Your task to perform on an android device: Go to ESPN.com Image 0: 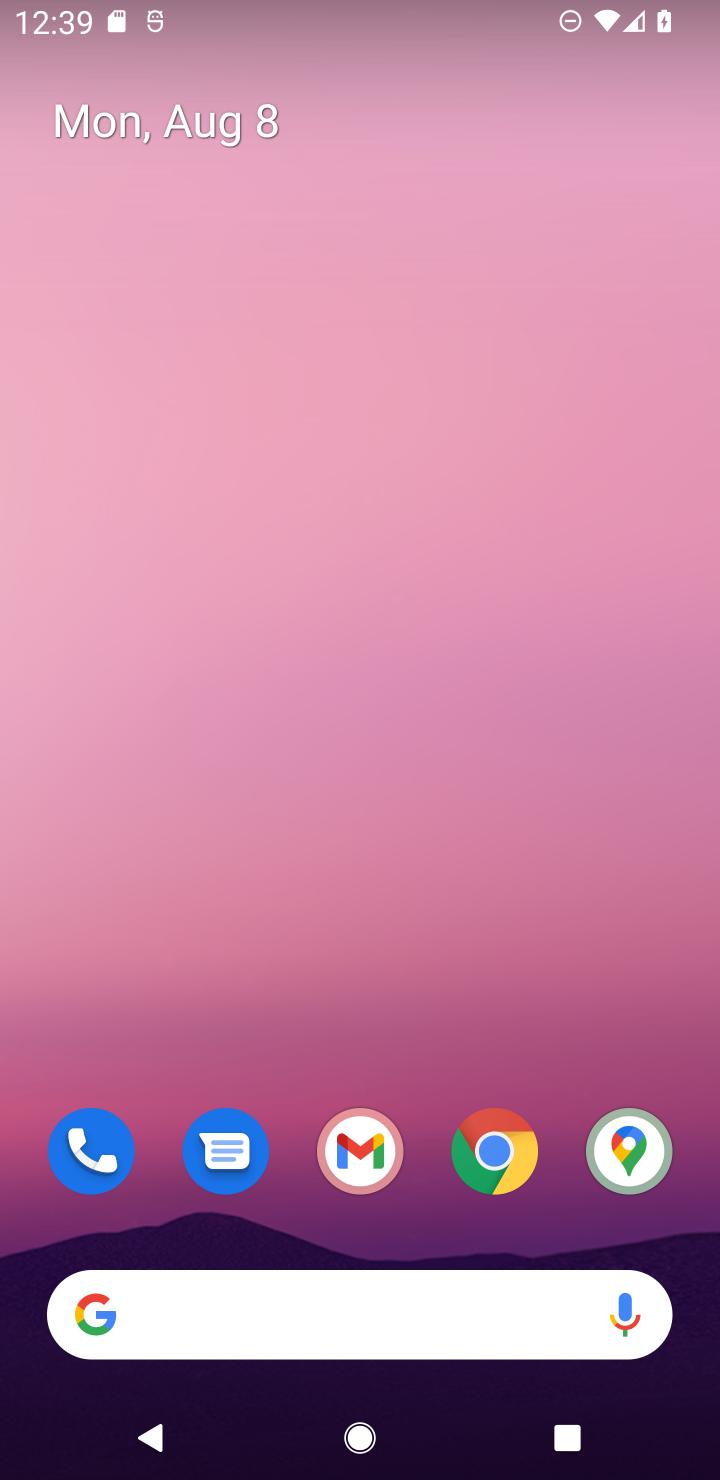
Step 0: click (510, 1158)
Your task to perform on an android device: Go to ESPN.com Image 1: 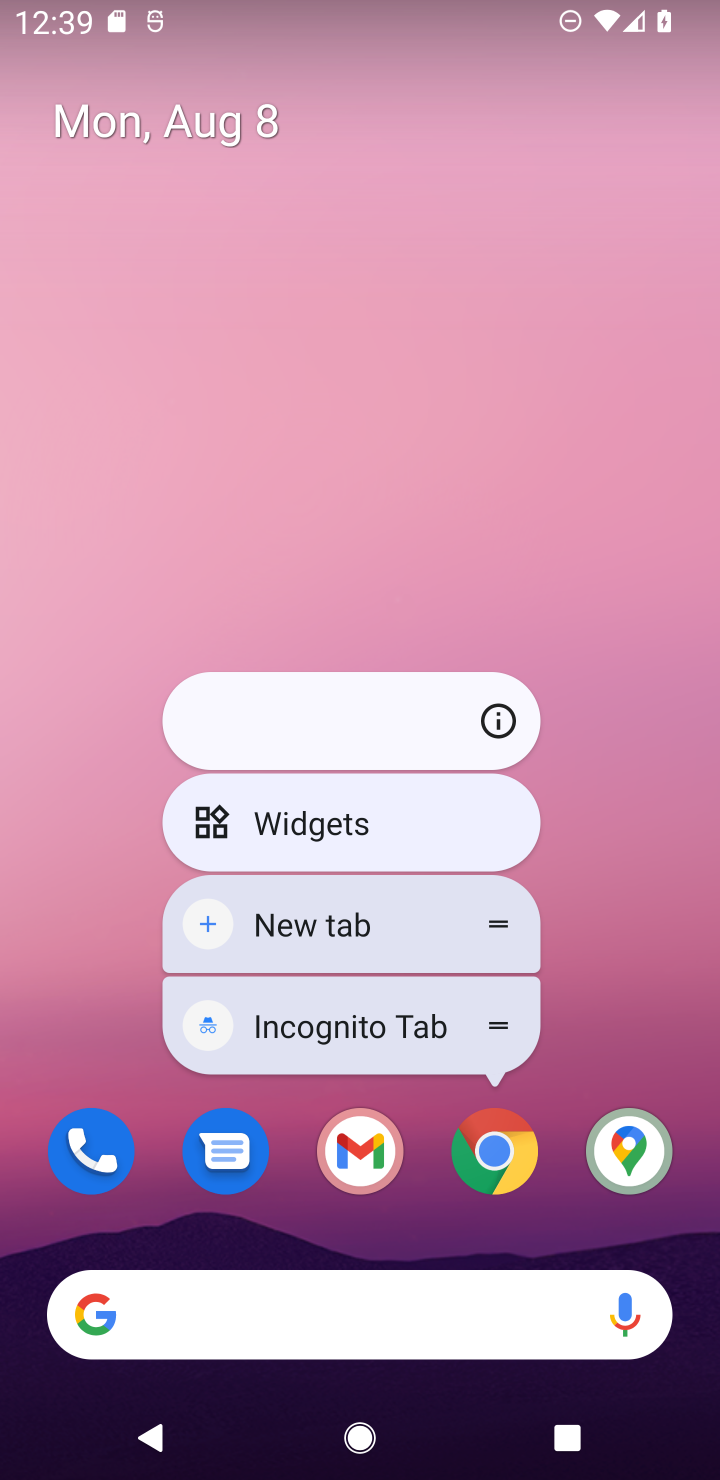
Step 1: click (503, 1139)
Your task to perform on an android device: Go to ESPN.com Image 2: 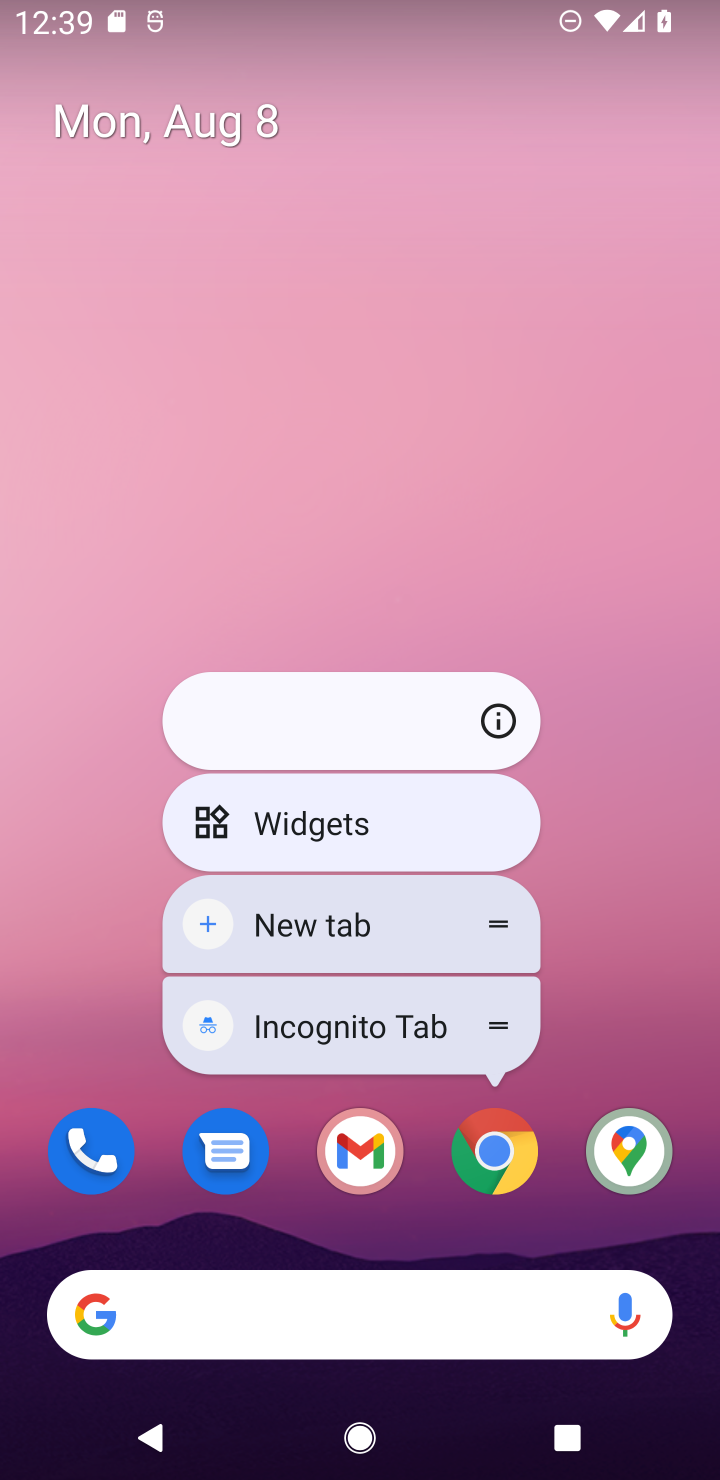
Step 2: click (496, 1171)
Your task to perform on an android device: Go to ESPN.com Image 3: 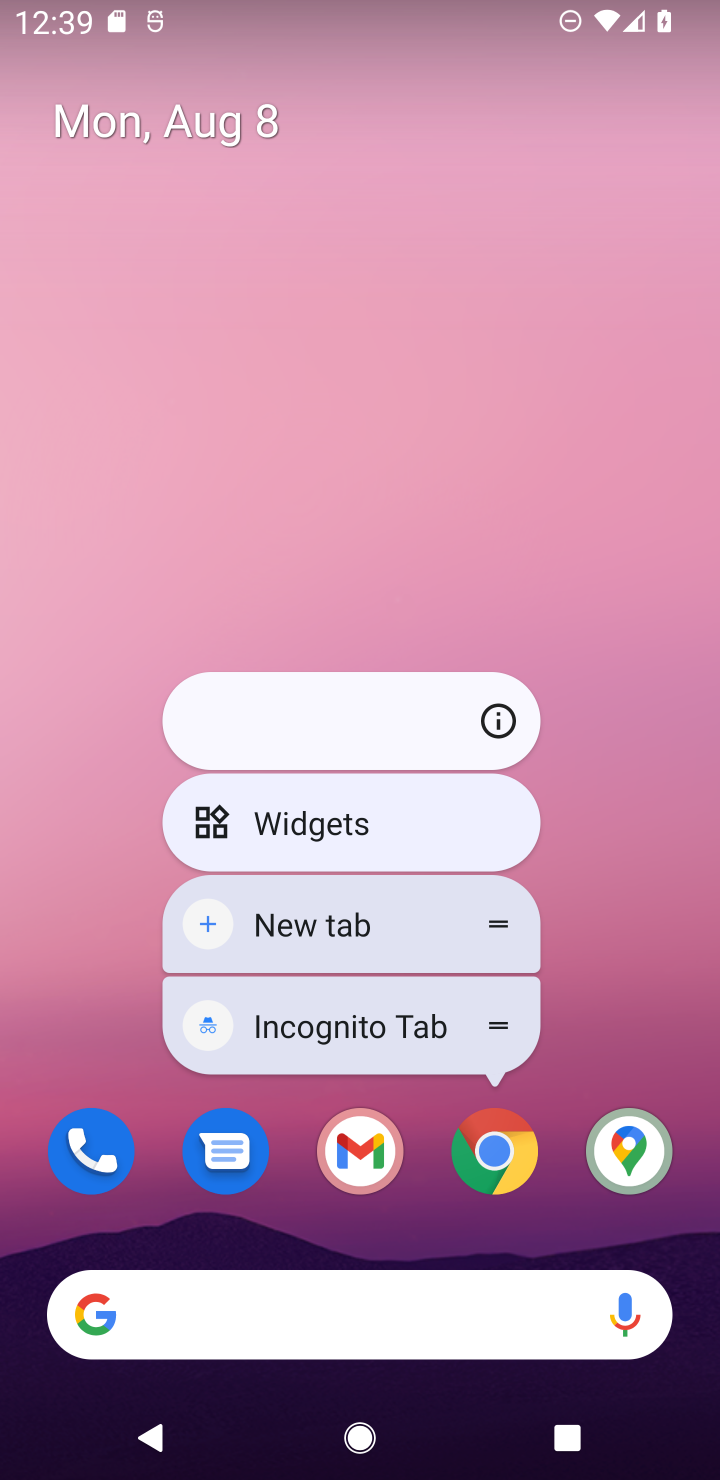
Step 3: click (497, 1139)
Your task to perform on an android device: Go to ESPN.com Image 4: 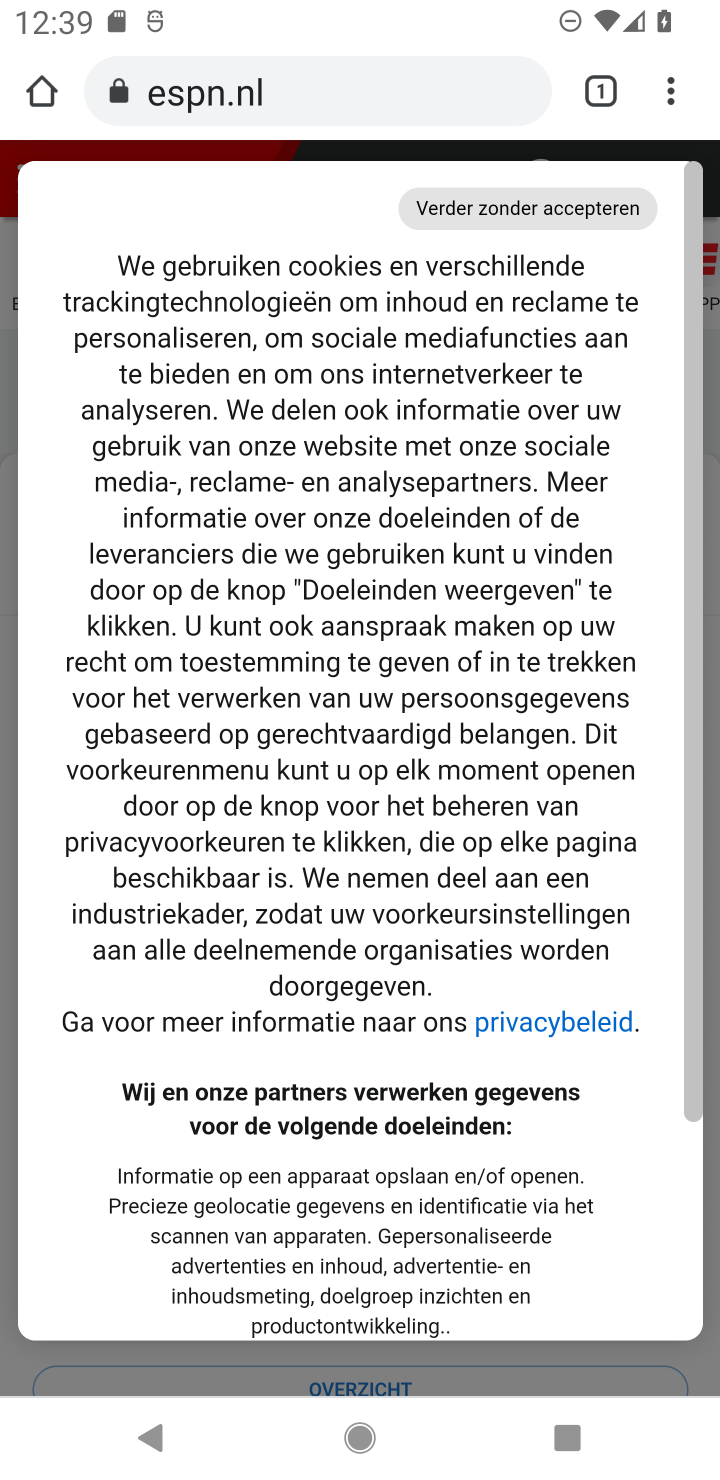
Step 4: task complete